Your task to perform on an android device: Go to notification settings Image 0: 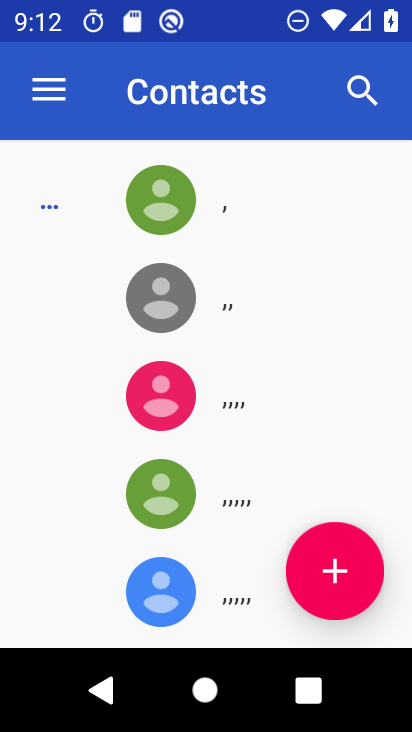
Step 0: press home button
Your task to perform on an android device: Go to notification settings Image 1: 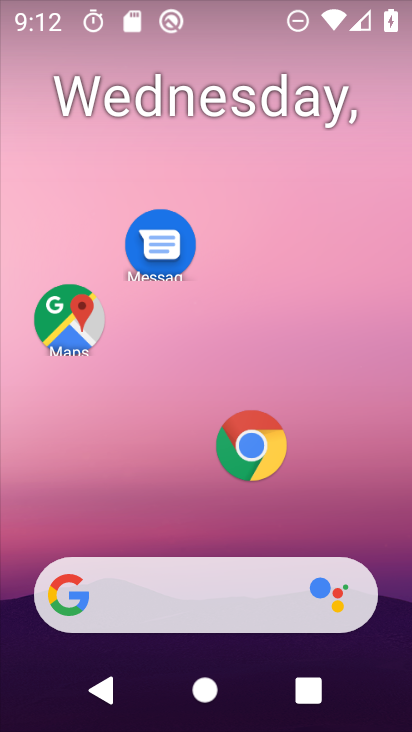
Step 1: drag from (208, 534) to (253, 39)
Your task to perform on an android device: Go to notification settings Image 2: 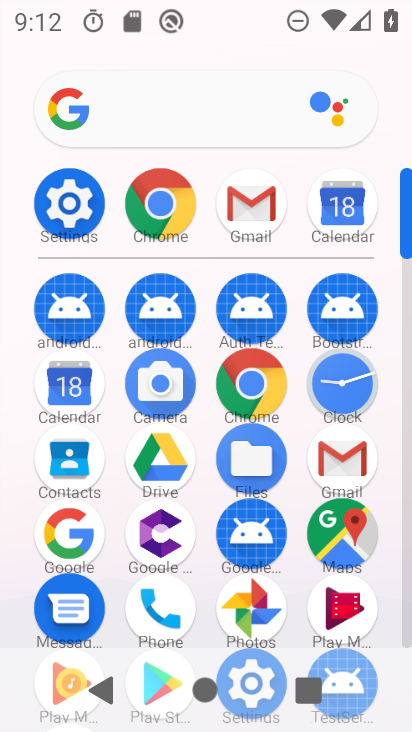
Step 2: click (69, 193)
Your task to perform on an android device: Go to notification settings Image 3: 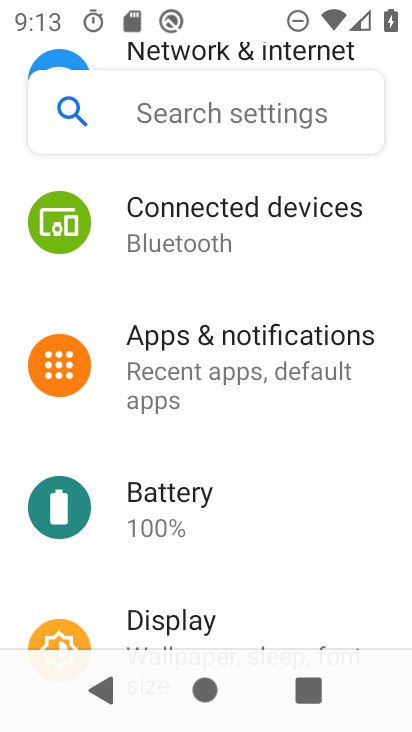
Step 3: click (213, 357)
Your task to perform on an android device: Go to notification settings Image 4: 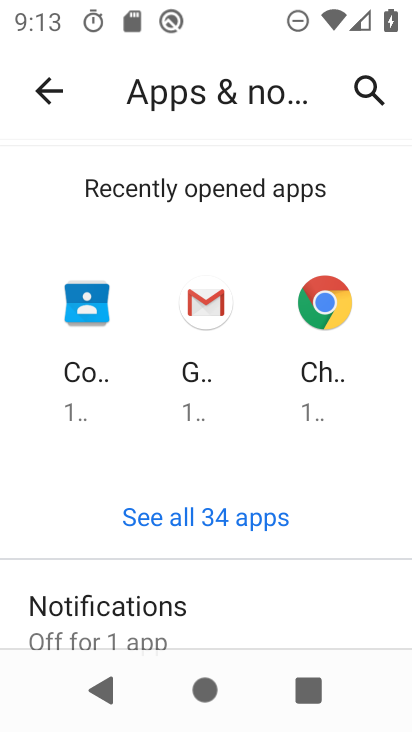
Step 4: click (200, 609)
Your task to perform on an android device: Go to notification settings Image 5: 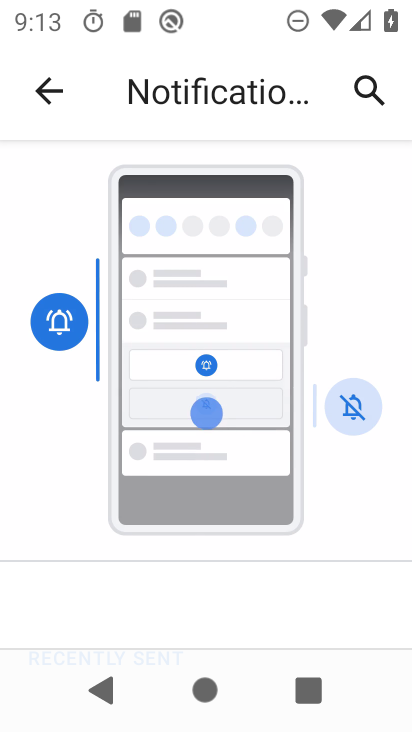
Step 5: drag from (230, 605) to (269, 173)
Your task to perform on an android device: Go to notification settings Image 6: 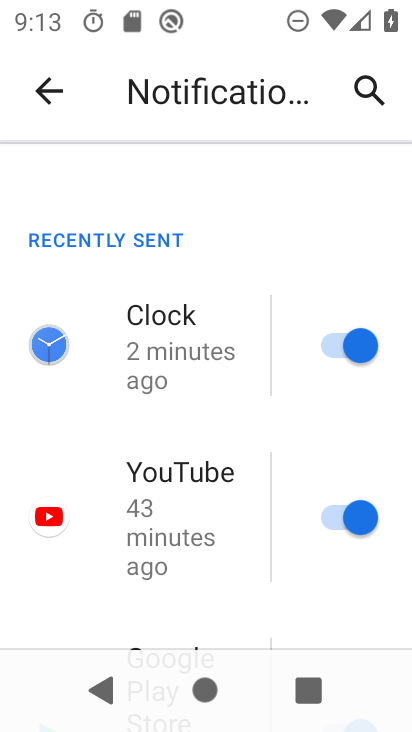
Step 6: drag from (239, 572) to (281, 143)
Your task to perform on an android device: Go to notification settings Image 7: 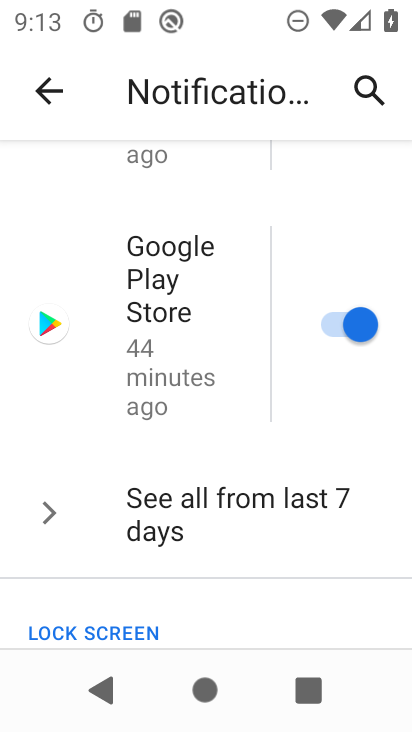
Step 7: drag from (222, 582) to (249, 240)
Your task to perform on an android device: Go to notification settings Image 8: 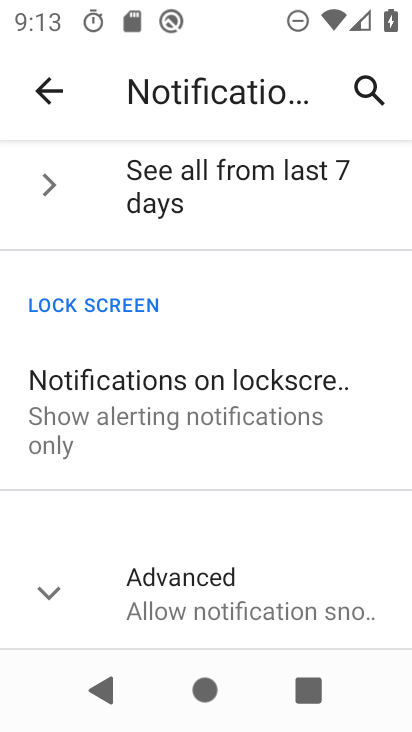
Step 8: click (59, 591)
Your task to perform on an android device: Go to notification settings Image 9: 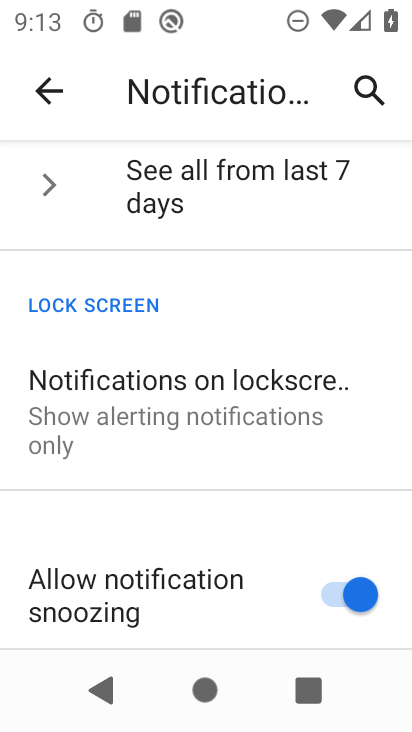
Step 9: task complete